Your task to perform on an android device: Go to Google maps Image 0: 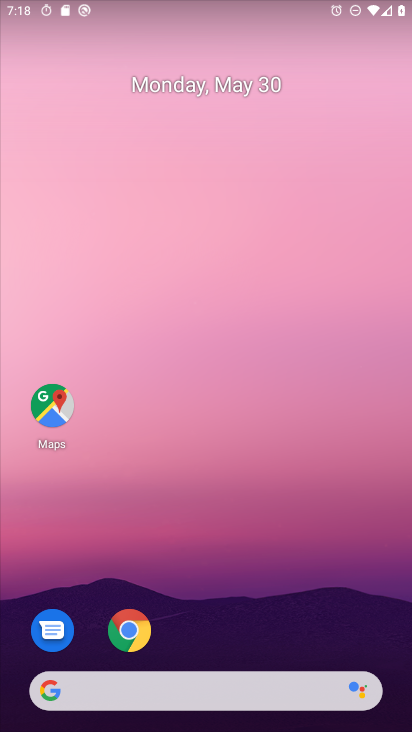
Step 0: drag from (358, 613) to (193, 24)
Your task to perform on an android device: Go to Google maps Image 1: 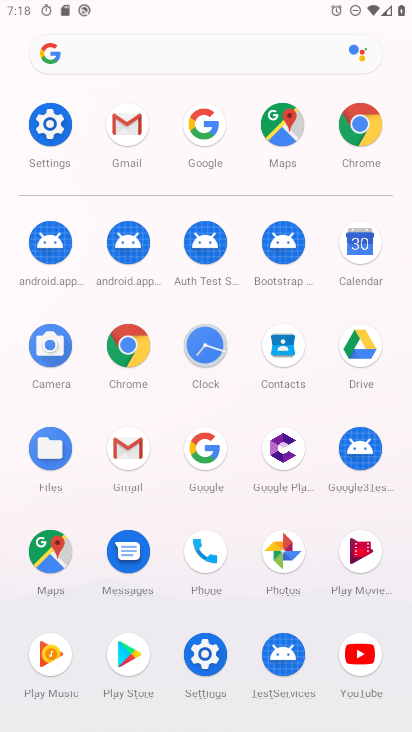
Step 1: click (284, 138)
Your task to perform on an android device: Go to Google maps Image 2: 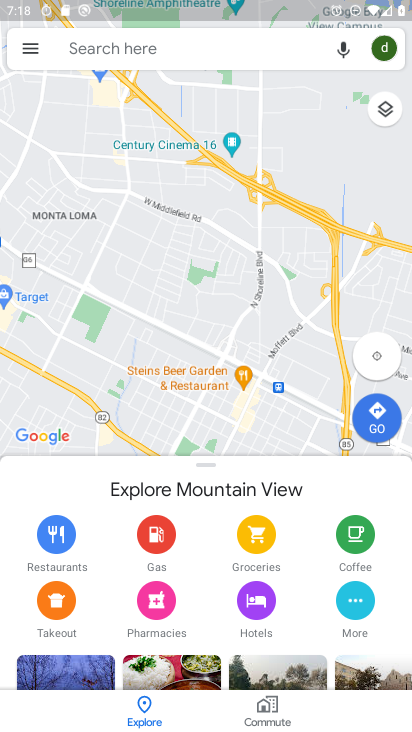
Step 2: click (287, 145)
Your task to perform on an android device: Go to Google maps Image 3: 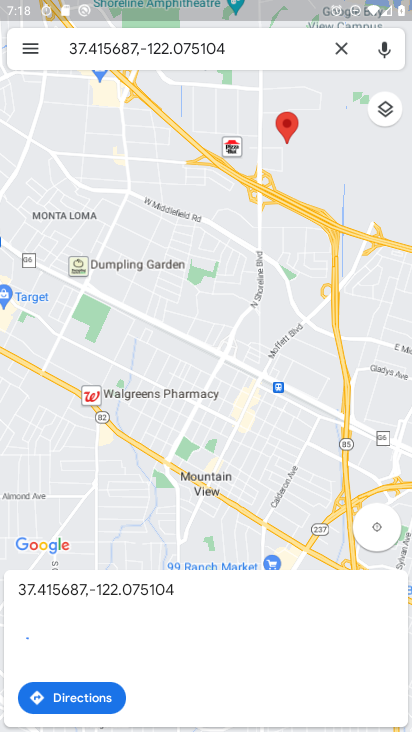
Step 3: task complete